Your task to perform on an android device: clear all cookies in the chrome app Image 0: 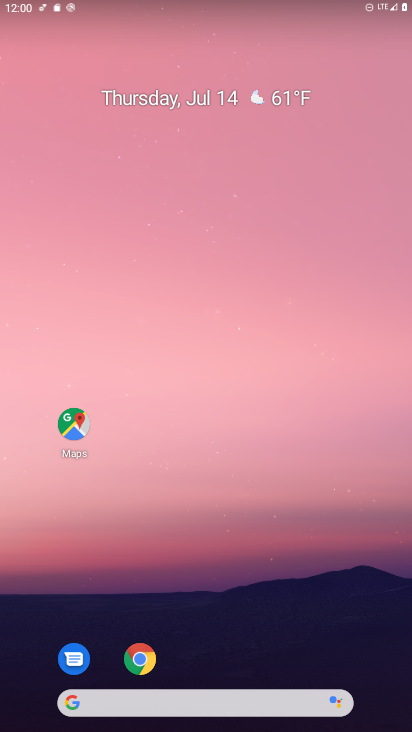
Step 0: click (140, 662)
Your task to perform on an android device: clear all cookies in the chrome app Image 1: 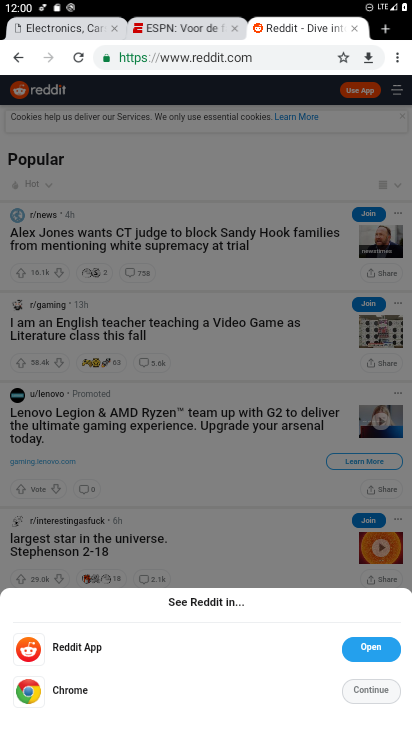
Step 1: click (395, 62)
Your task to perform on an android device: clear all cookies in the chrome app Image 2: 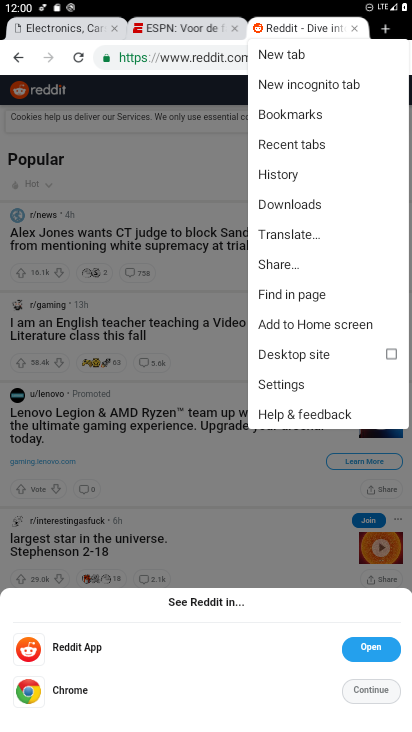
Step 2: click (272, 174)
Your task to perform on an android device: clear all cookies in the chrome app Image 3: 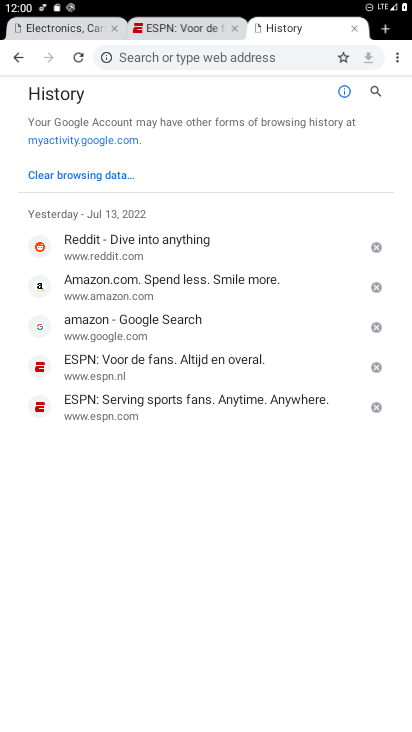
Step 3: click (77, 178)
Your task to perform on an android device: clear all cookies in the chrome app Image 4: 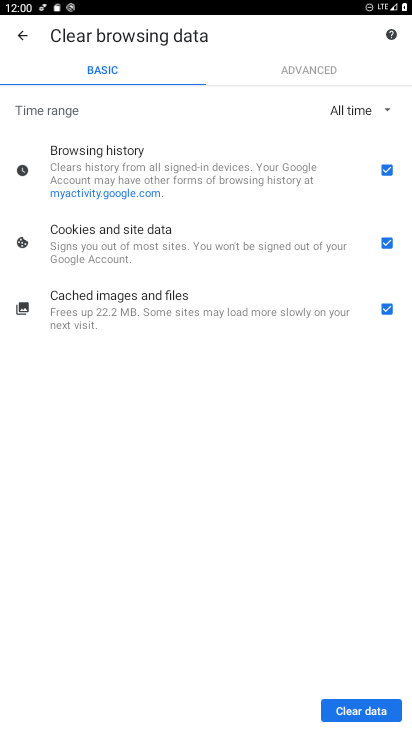
Step 4: click (386, 165)
Your task to perform on an android device: clear all cookies in the chrome app Image 5: 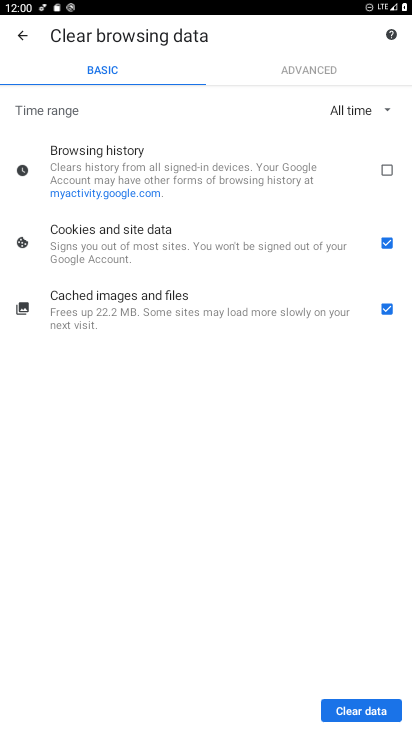
Step 5: click (383, 311)
Your task to perform on an android device: clear all cookies in the chrome app Image 6: 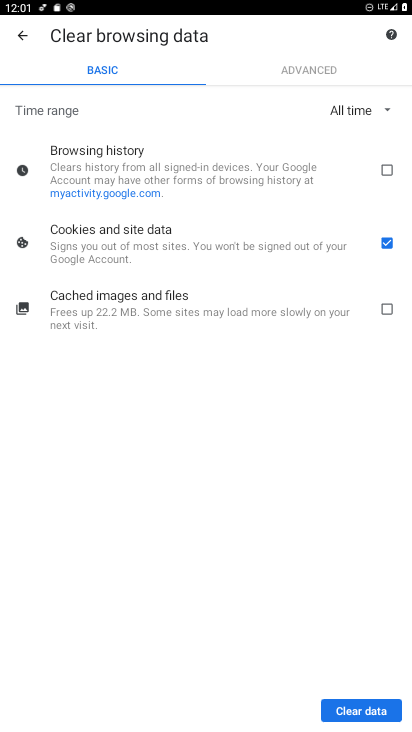
Step 6: click (363, 711)
Your task to perform on an android device: clear all cookies in the chrome app Image 7: 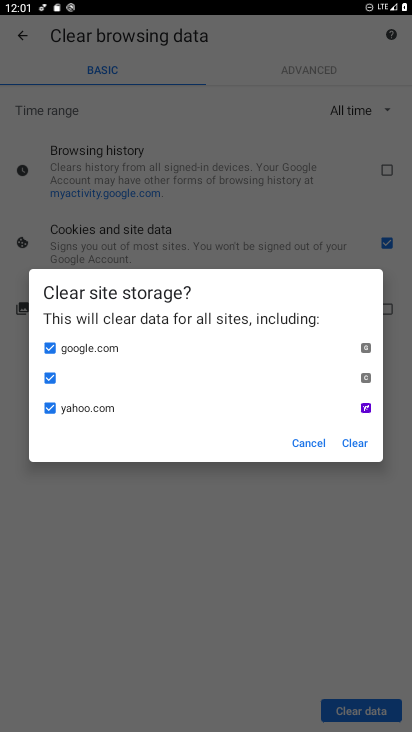
Step 7: click (352, 445)
Your task to perform on an android device: clear all cookies in the chrome app Image 8: 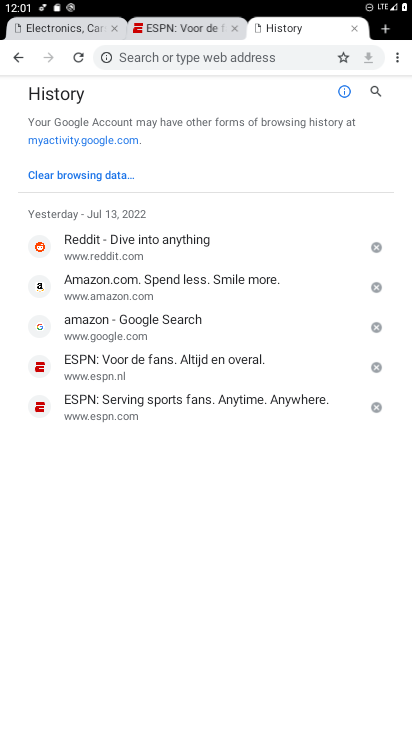
Step 8: task complete